Your task to perform on an android device: Go to sound settings Image 0: 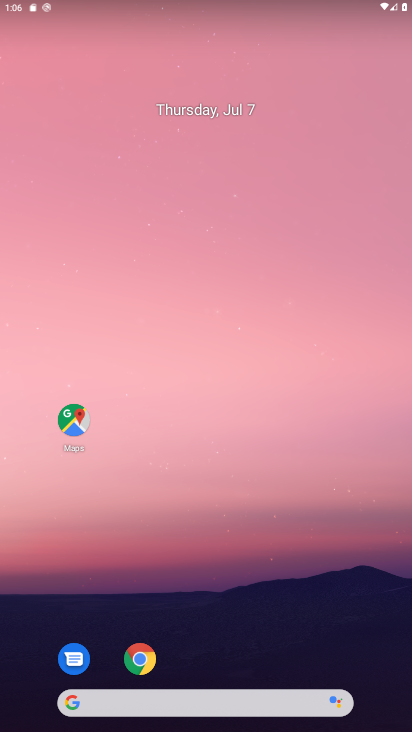
Step 0: drag from (210, 599) to (251, 267)
Your task to perform on an android device: Go to sound settings Image 1: 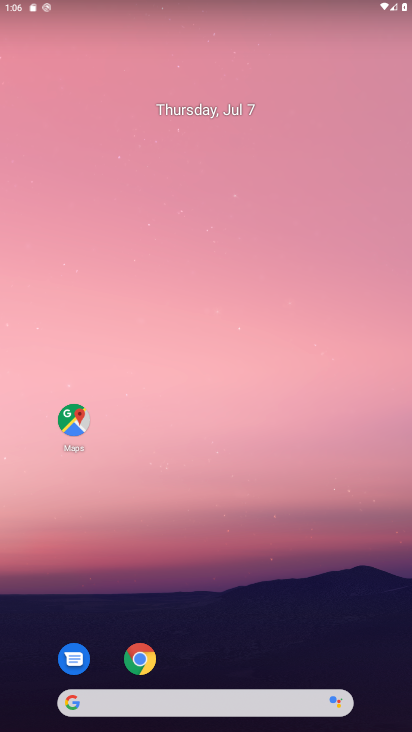
Step 1: drag from (195, 654) to (212, 336)
Your task to perform on an android device: Go to sound settings Image 2: 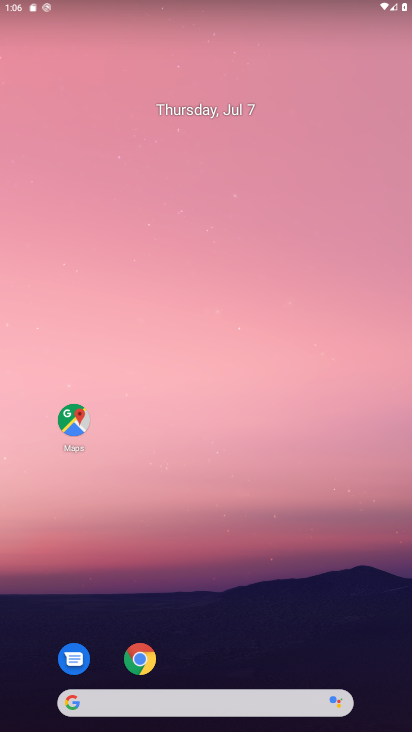
Step 2: drag from (199, 647) to (253, 50)
Your task to perform on an android device: Go to sound settings Image 3: 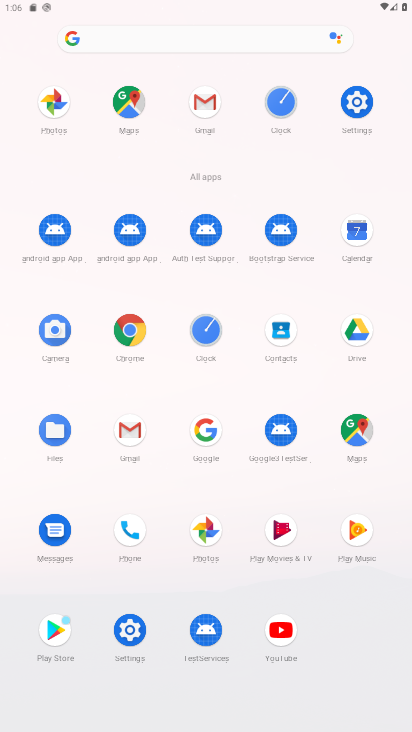
Step 3: click (350, 120)
Your task to perform on an android device: Go to sound settings Image 4: 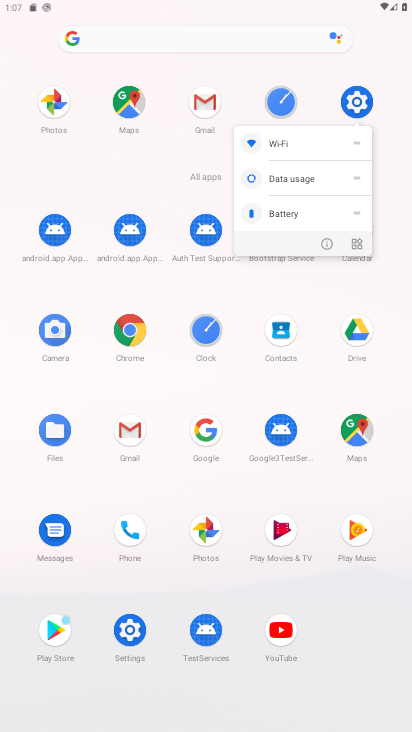
Step 4: click (331, 245)
Your task to perform on an android device: Go to sound settings Image 5: 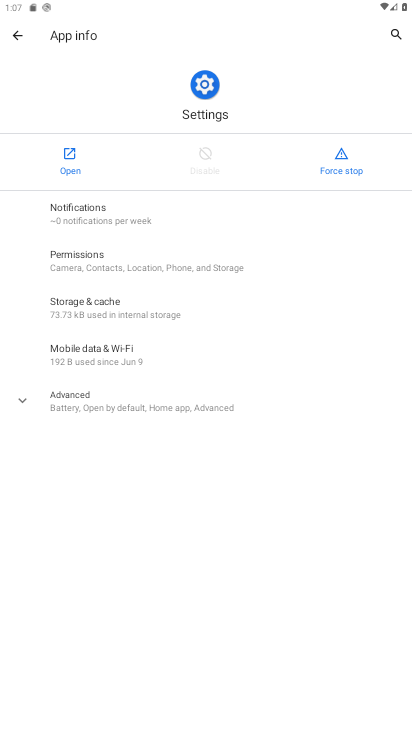
Step 5: click (81, 157)
Your task to perform on an android device: Go to sound settings Image 6: 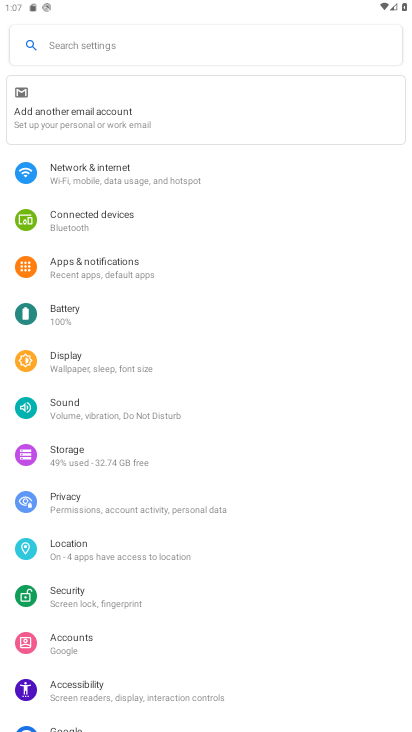
Step 6: click (113, 416)
Your task to perform on an android device: Go to sound settings Image 7: 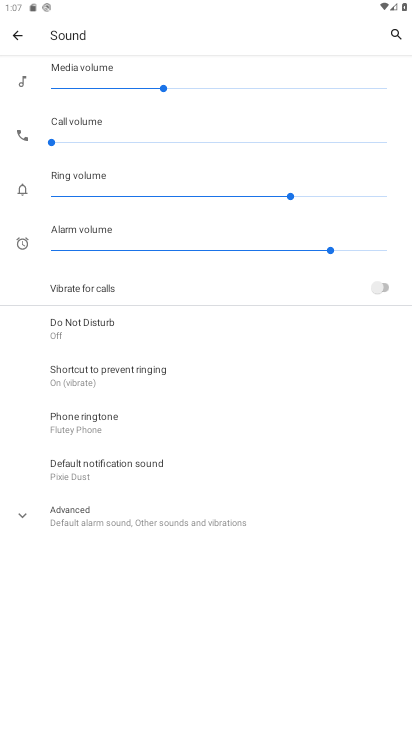
Step 7: task complete